Your task to perform on an android device: See recent photos Image 0: 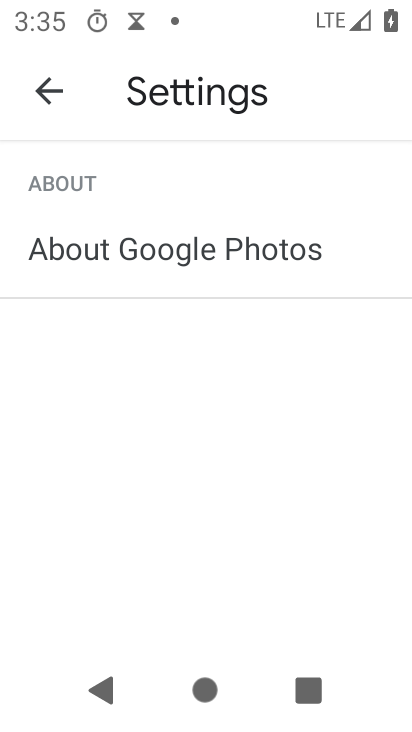
Step 0: press home button
Your task to perform on an android device: See recent photos Image 1: 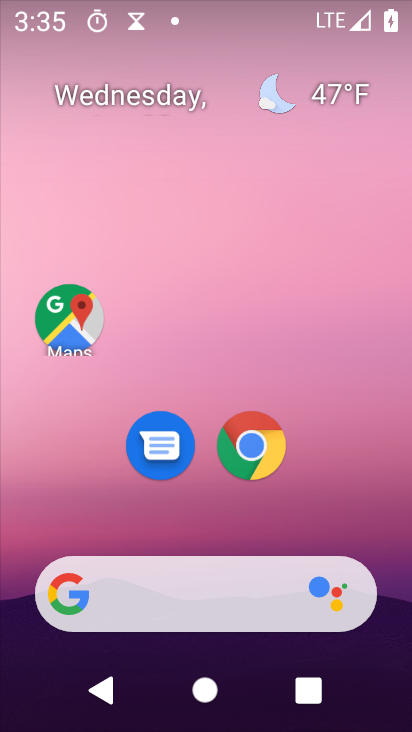
Step 1: drag from (379, 554) to (380, 7)
Your task to perform on an android device: See recent photos Image 2: 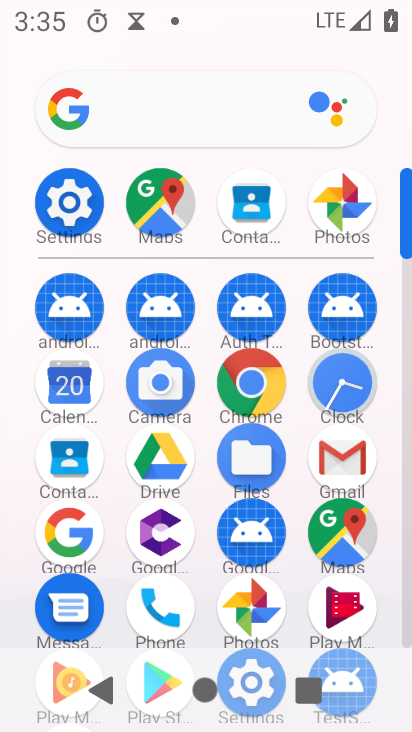
Step 2: click (341, 206)
Your task to perform on an android device: See recent photos Image 3: 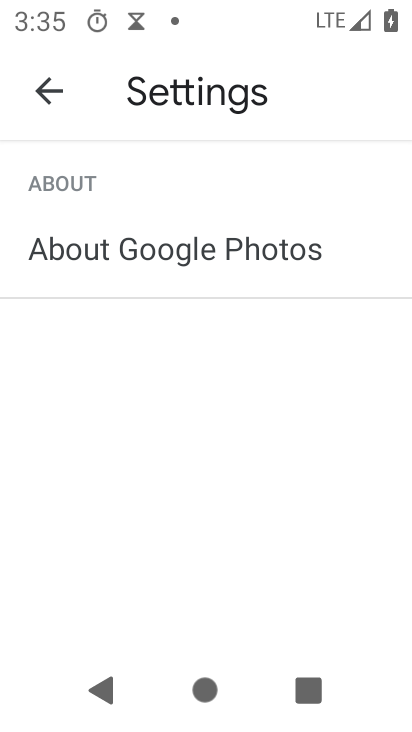
Step 3: click (50, 102)
Your task to perform on an android device: See recent photos Image 4: 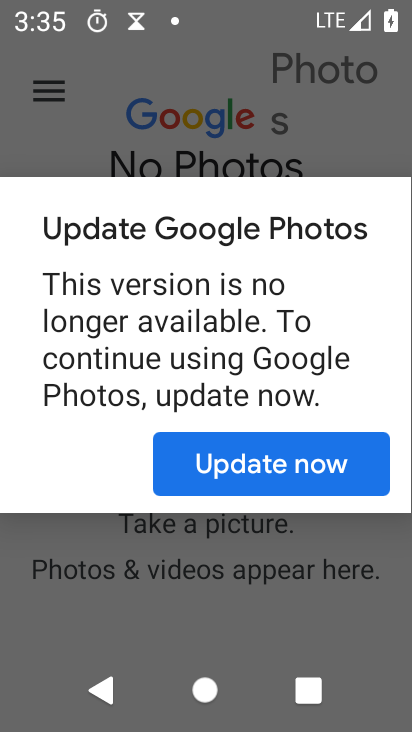
Step 4: click (278, 472)
Your task to perform on an android device: See recent photos Image 5: 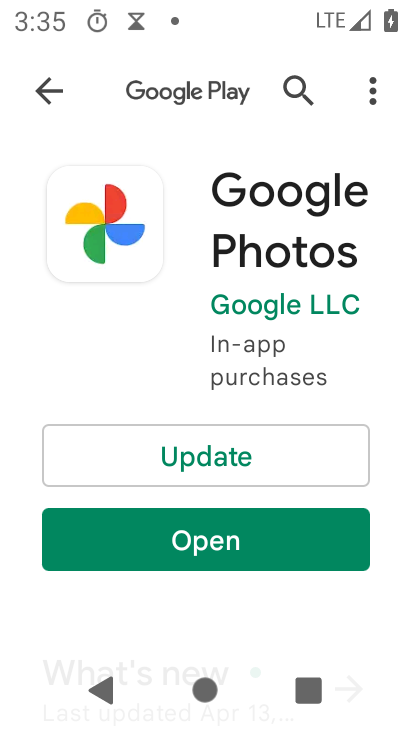
Step 5: click (202, 465)
Your task to perform on an android device: See recent photos Image 6: 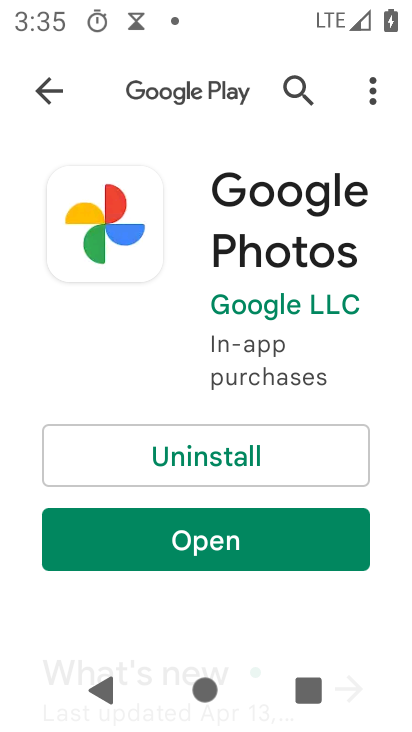
Step 6: click (217, 558)
Your task to perform on an android device: See recent photos Image 7: 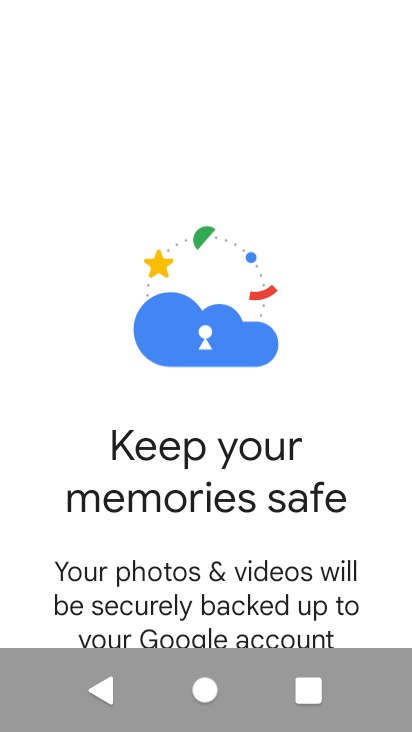
Step 7: drag from (253, 582) to (275, 187)
Your task to perform on an android device: See recent photos Image 8: 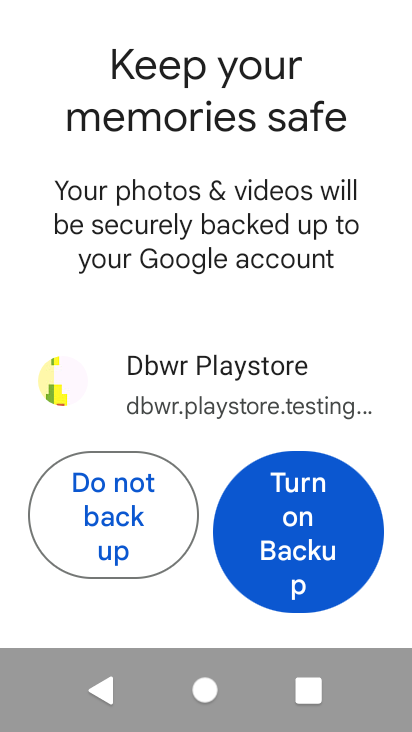
Step 8: drag from (401, 507) to (388, 269)
Your task to perform on an android device: See recent photos Image 9: 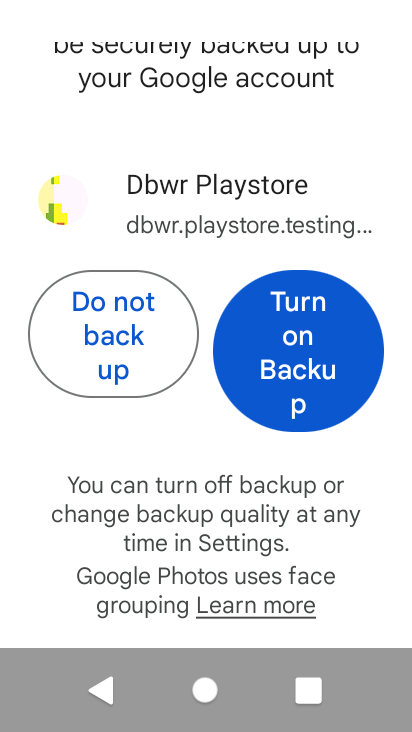
Step 9: drag from (158, 546) to (125, 233)
Your task to perform on an android device: See recent photos Image 10: 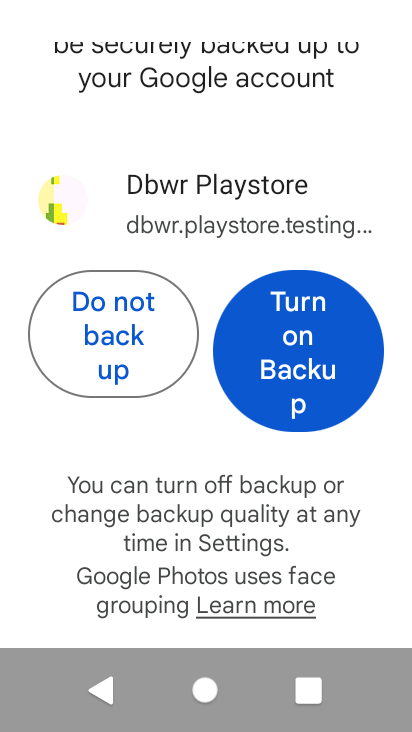
Step 10: drag from (336, 533) to (15, 630)
Your task to perform on an android device: See recent photos Image 11: 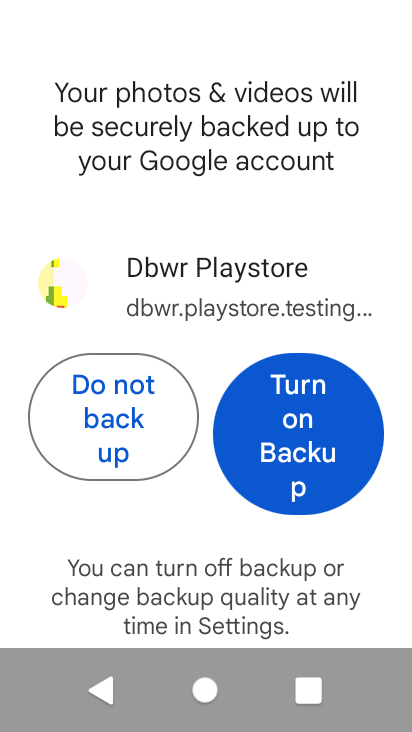
Step 11: drag from (173, 506) to (188, 599)
Your task to perform on an android device: See recent photos Image 12: 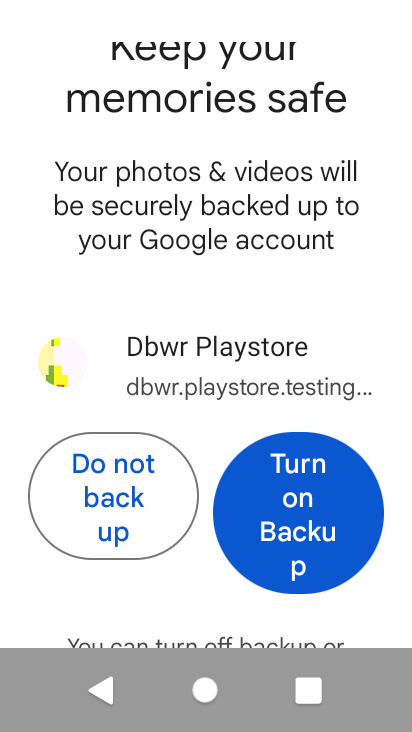
Step 12: drag from (214, 239) to (228, 393)
Your task to perform on an android device: See recent photos Image 13: 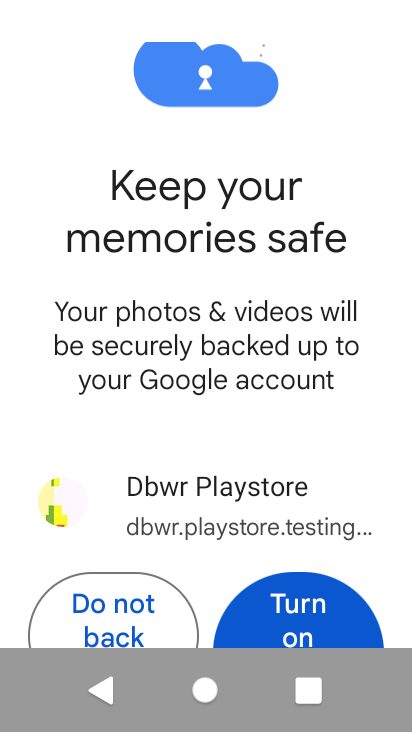
Step 13: click (274, 625)
Your task to perform on an android device: See recent photos Image 14: 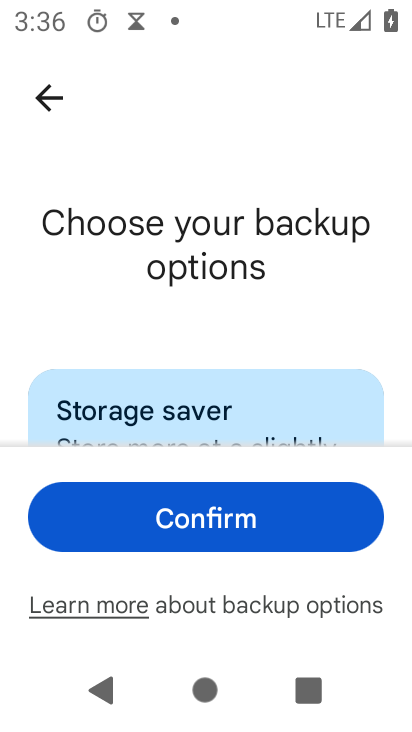
Step 14: click (214, 514)
Your task to perform on an android device: See recent photos Image 15: 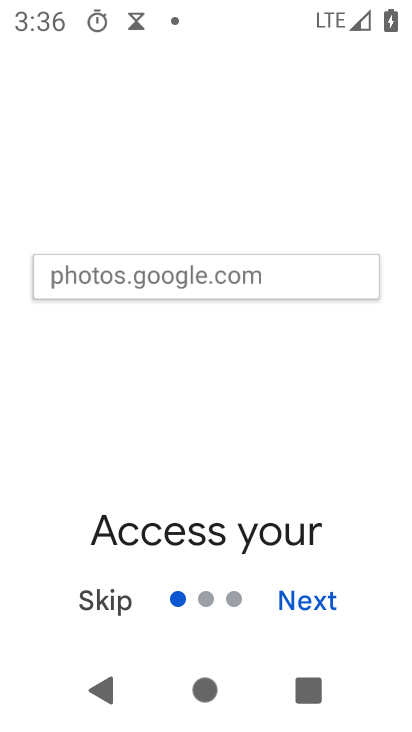
Step 15: click (104, 608)
Your task to perform on an android device: See recent photos Image 16: 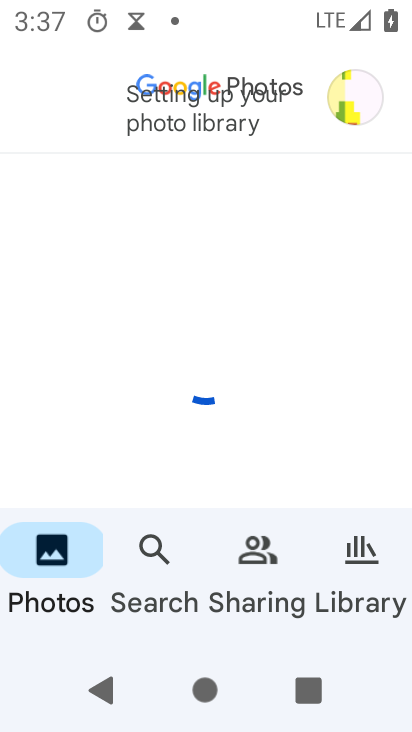
Step 16: click (362, 582)
Your task to perform on an android device: See recent photos Image 17: 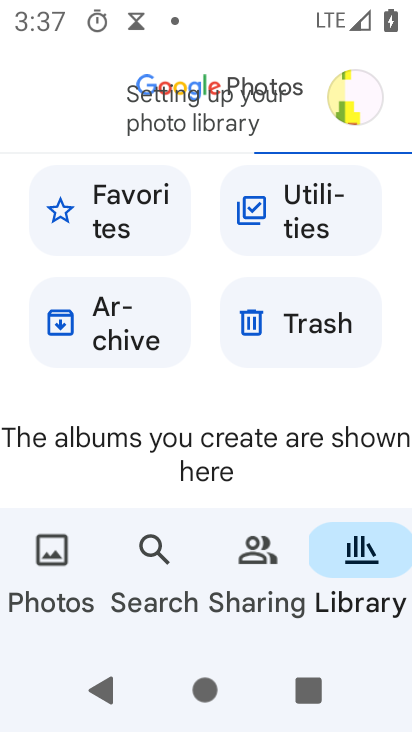
Step 17: drag from (335, 289) to (352, 518)
Your task to perform on an android device: See recent photos Image 18: 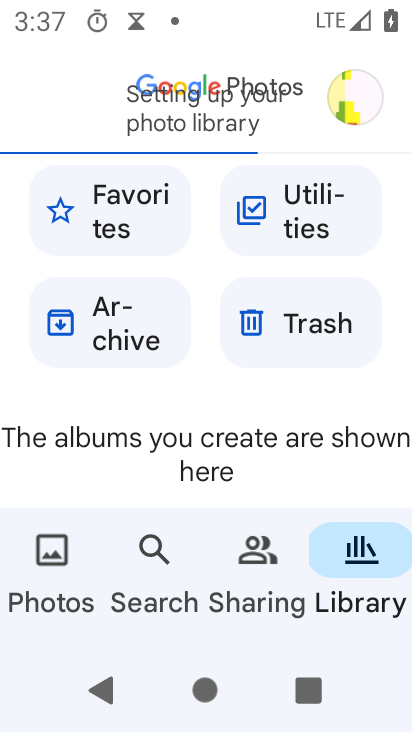
Step 18: drag from (360, 297) to (342, 600)
Your task to perform on an android device: See recent photos Image 19: 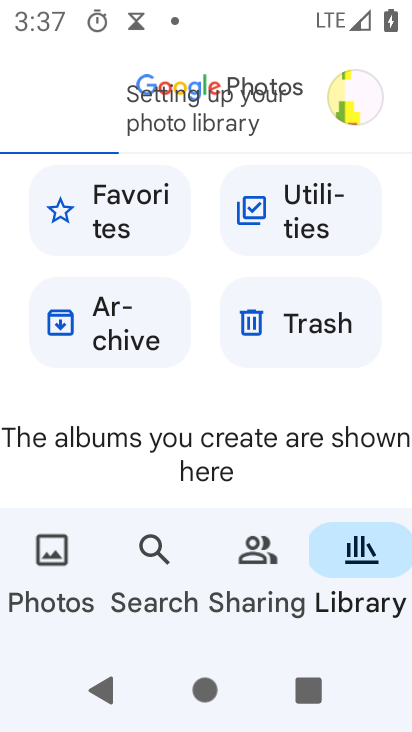
Step 19: drag from (380, 192) to (410, 402)
Your task to perform on an android device: See recent photos Image 20: 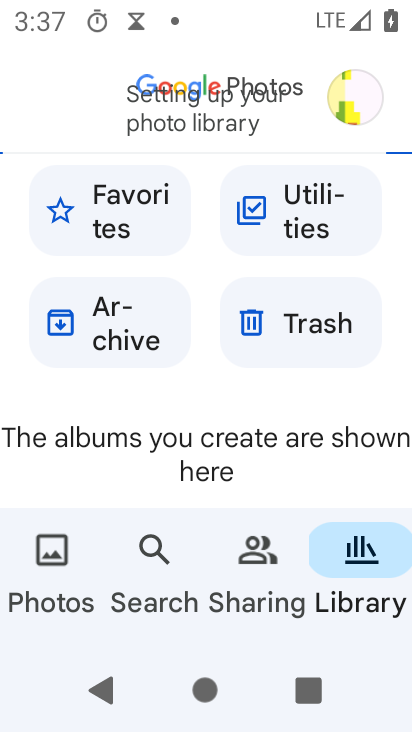
Step 20: drag from (330, 406) to (310, 148)
Your task to perform on an android device: See recent photos Image 21: 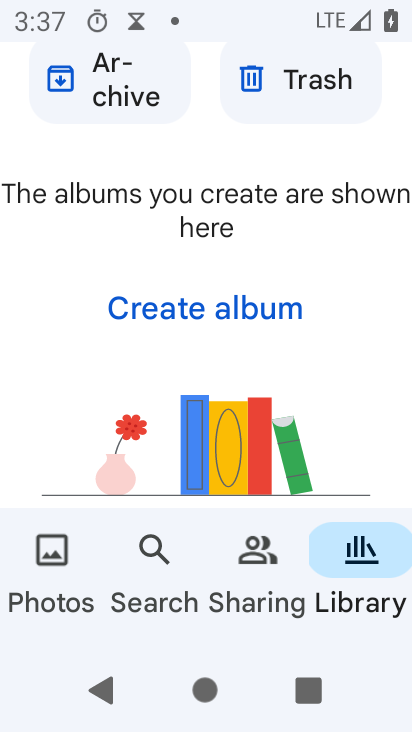
Step 21: drag from (332, 420) to (308, 111)
Your task to perform on an android device: See recent photos Image 22: 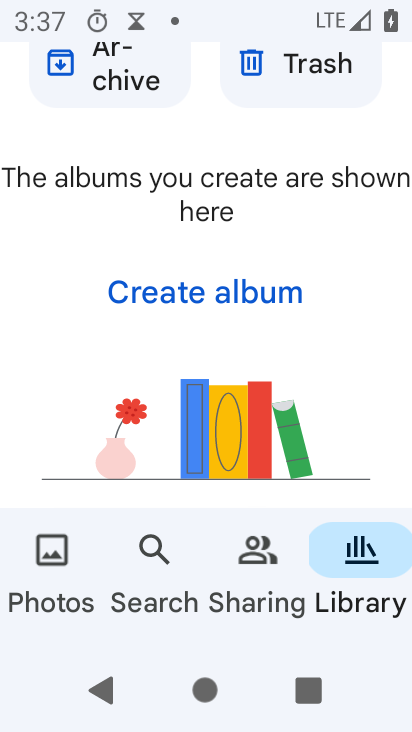
Step 22: drag from (325, 247) to (370, 604)
Your task to perform on an android device: See recent photos Image 23: 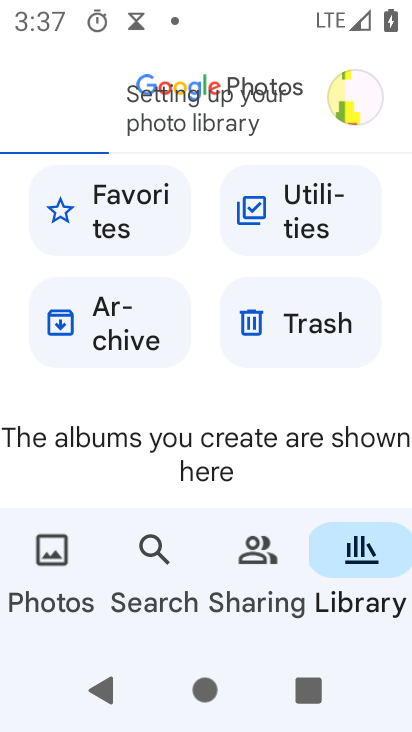
Step 23: drag from (341, 222) to (359, 498)
Your task to perform on an android device: See recent photos Image 24: 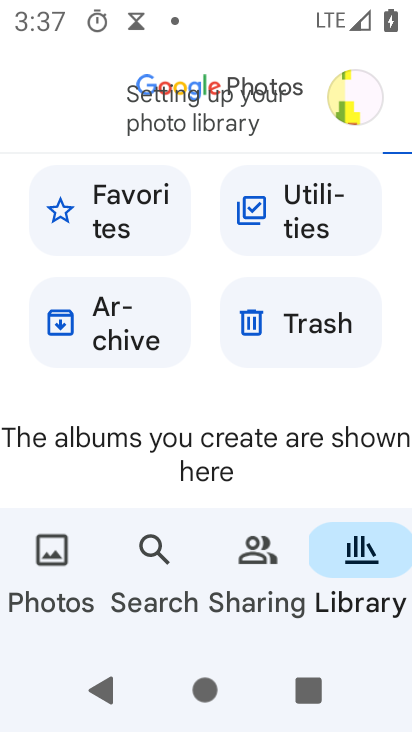
Step 24: click (346, 109)
Your task to perform on an android device: See recent photos Image 25: 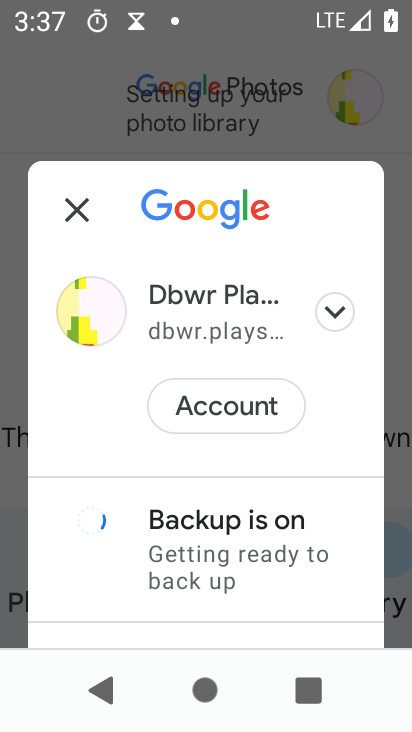
Step 25: click (110, 683)
Your task to perform on an android device: See recent photos Image 26: 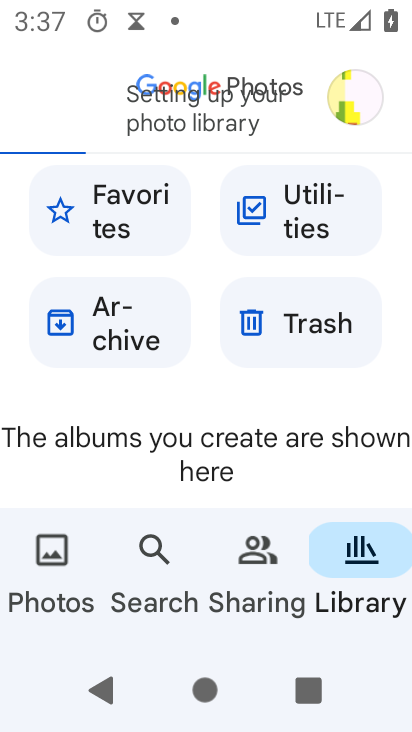
Step 26: drag from (358, 292) to (368, 507)
Your task to perform on an android device: See recent photos Image 27: 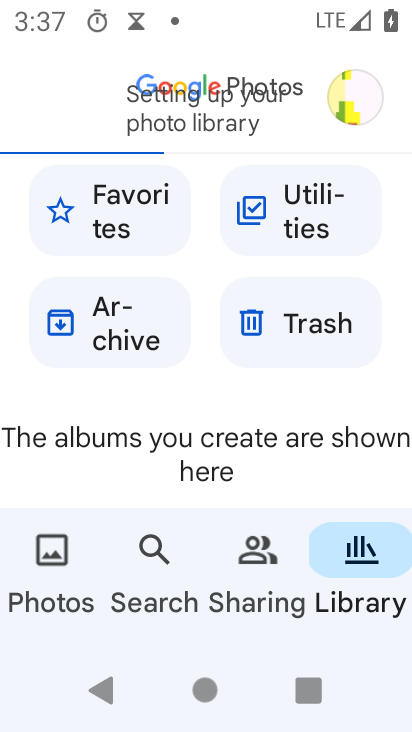
Step 27: click (302, 216)
Your task to perform on an android device: See recent photos Image 28: 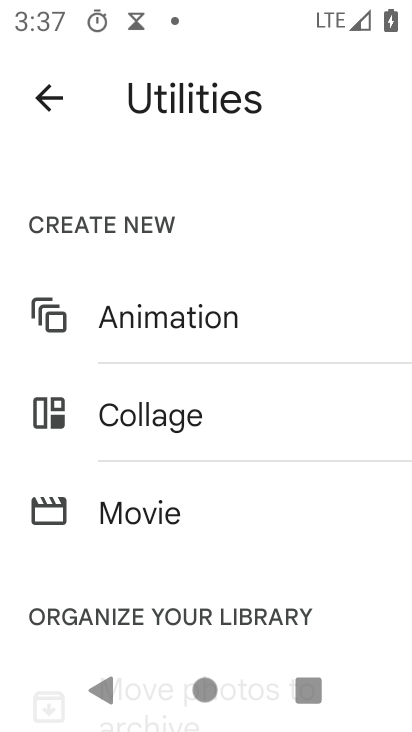
Step 28: task complete